Your task to perform on an android device: change keyboard looks Image 0: 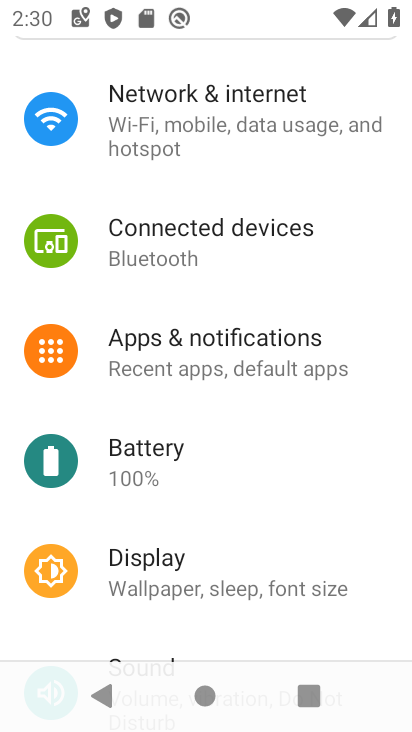
Step 0: drag from (205, 521) to (247, 89)
Your task to perform on an android device: change keyboard looks Image 1: 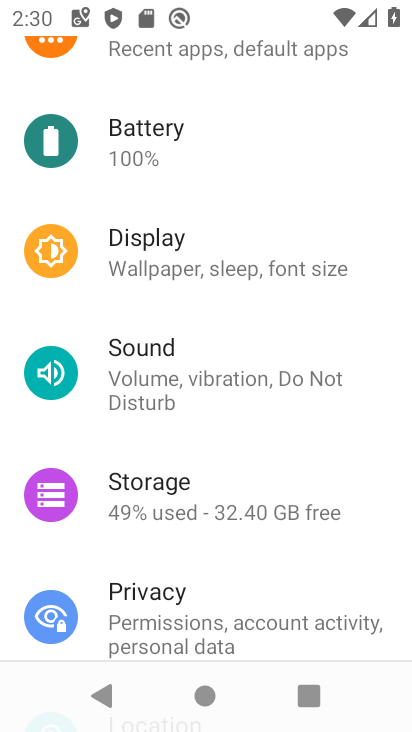
Step 1: drag from (184, 562) to (254, 199)
Your task to perform on an android device: change keyboard looks Image 2: 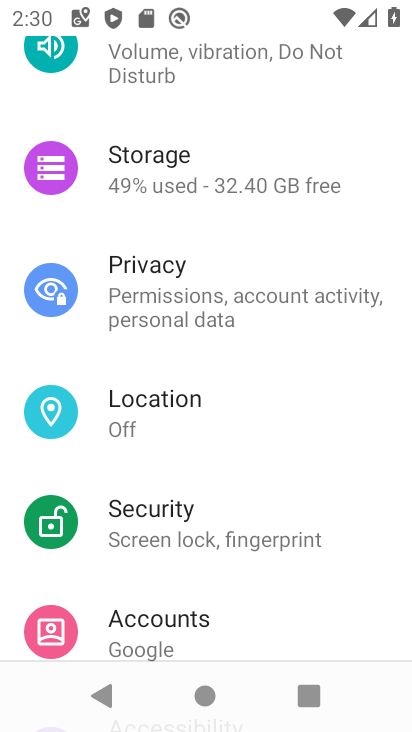
Step 2: drag from (173, 562) to (243, 120)
Your task to perform on an android device: change keyboard looks Image 3: 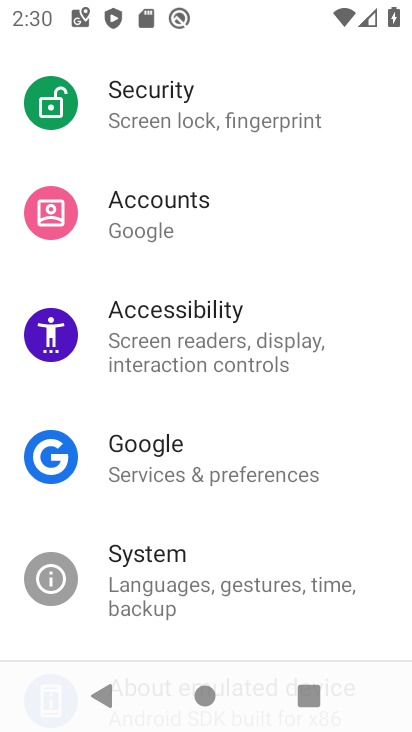
Step 3: click (179, 581)
Your task to perform on an android device: change keyboard looks Image 4: 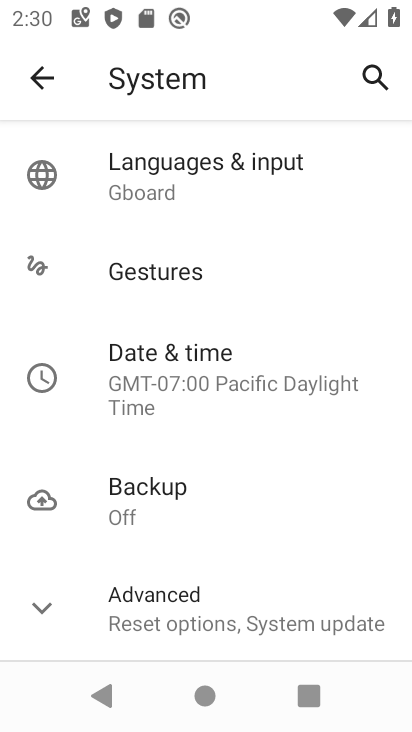
Step 4: drag from (252, 549) to (289, 78)
Your task to perform on an android device: change keyboard looks Image 5: 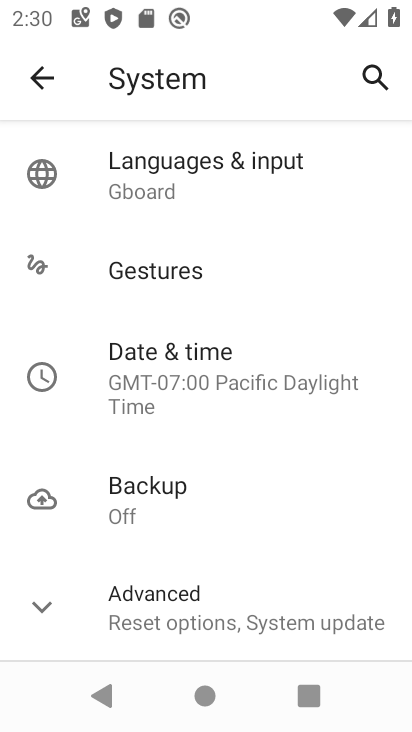
Step 5: click (211, 193)
Your task to perform on an android device: change keyboard looks Image 6: 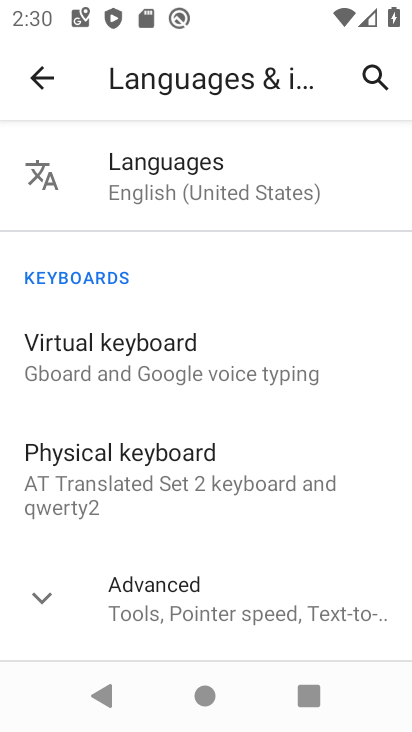
Step 6: click (245, 341)
Your task to perform on an android device: change keyboard looks Image 7: 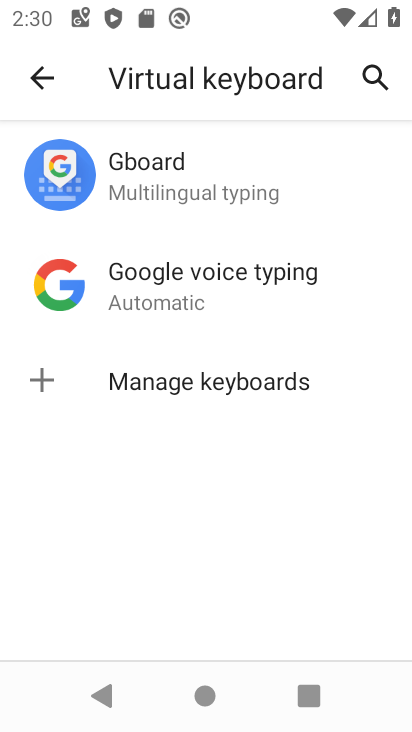
Step 7: click (140, 147)
Your task to perform on an android device: change keyboard looks Image 8: 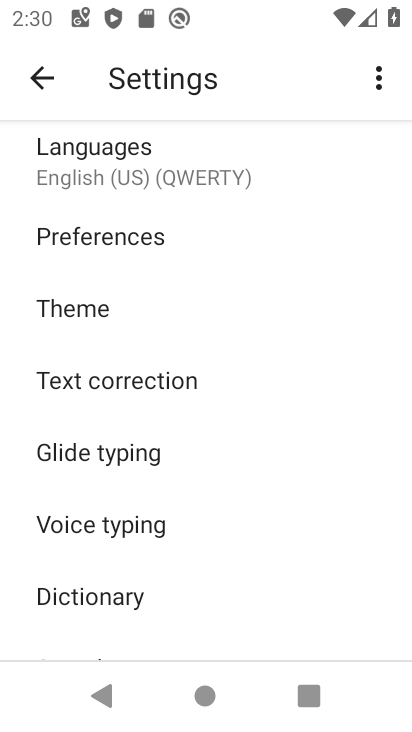
Step 8: drag from (173, 520) to (212, 161)
Your task to perform on an android device: change keyboard looks Image 9: 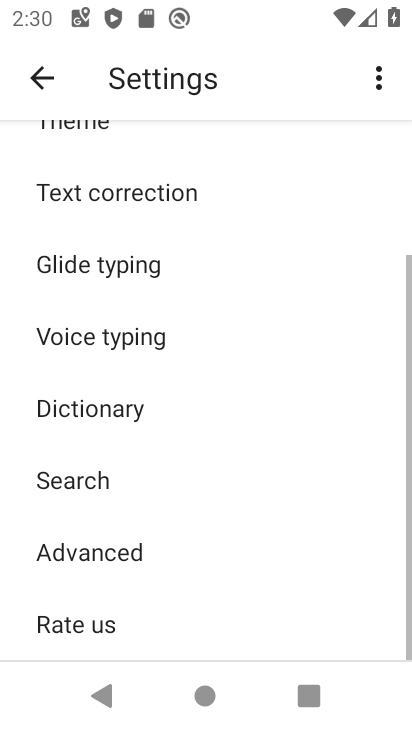
Step 9: drag from (199, 213) to (227, 568)
Your task to perform on an android device: change keyboard looks Image 10: 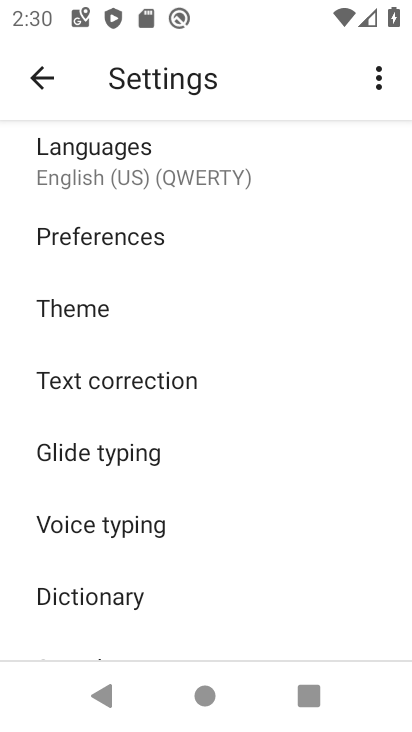
Step 10: click (77, 303)
Your task to perform on an android device: change keyboard looks Image 11: 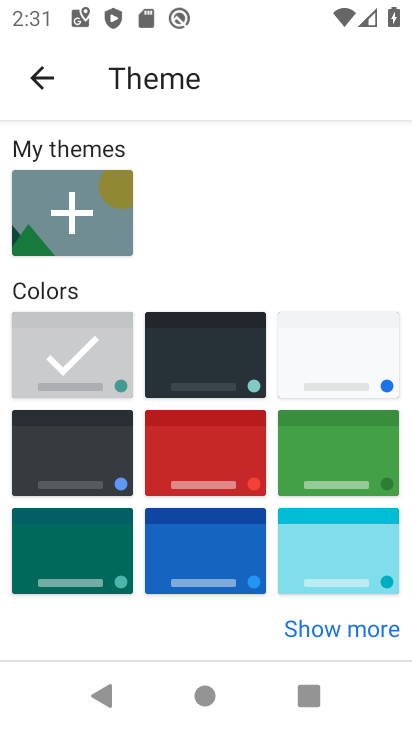
Step 11: click (347, 350)
Your task to perform on an android device: change keyboard looks Image 12: 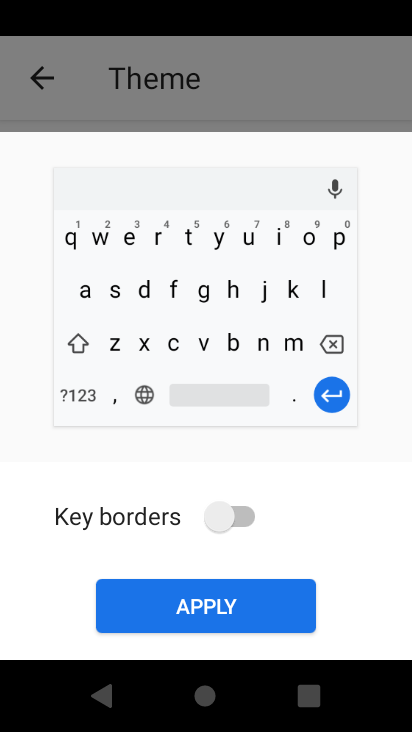
Step 12: click (259, 593)
Your task to perform on an android device: change keyboard looks Image 13: 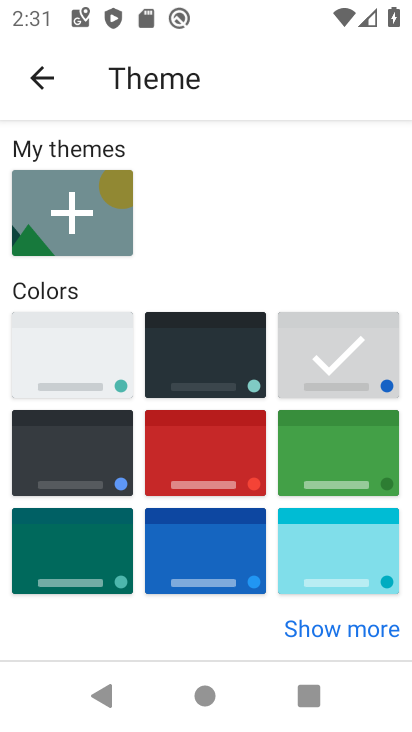
Step 13: task complete